Your task to perform on an android device: change notifications settings Image 0: 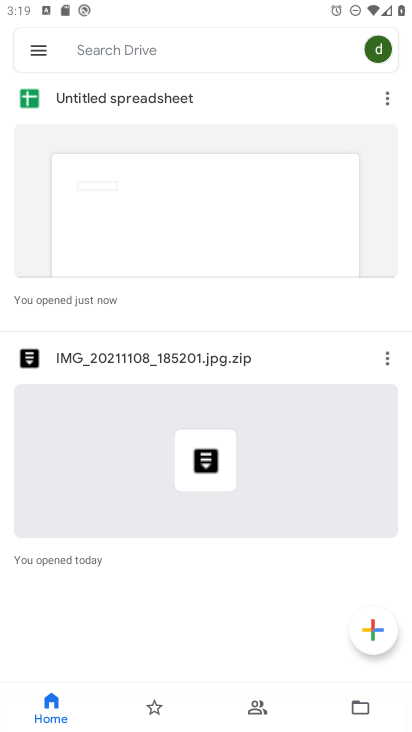
Step 0: press home button
Your task to perform on an android device: change notifications settings Image 1: 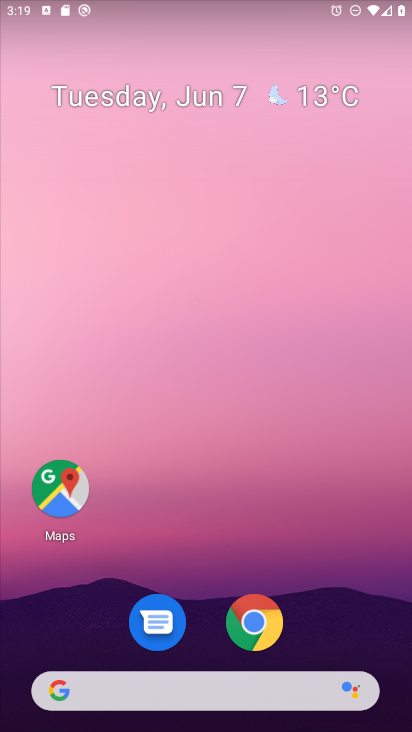
Step 1: drag from (231, 135) to (230, 63)
Your task to perform on an android device: change notifications settings Image 2: 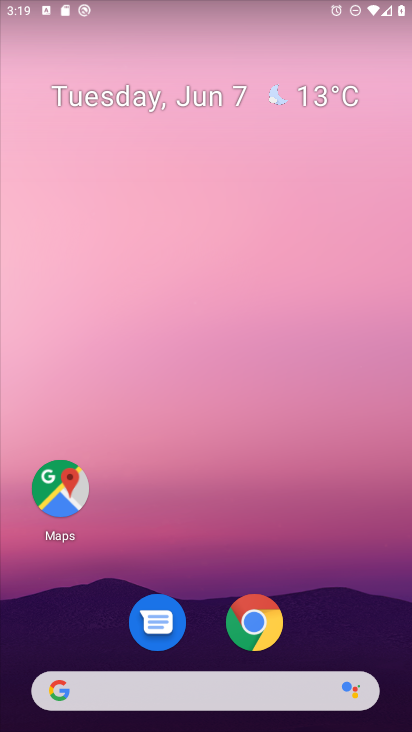
Step 2: drag from (269, 338) to (228, 29)
Your task to perform on an android device: change notifications settings Image 3: 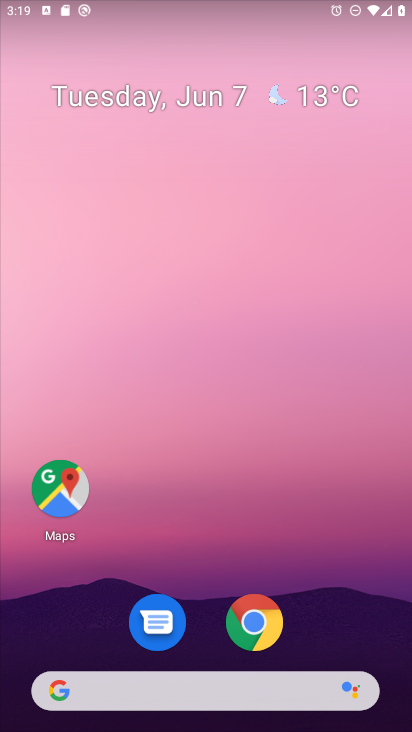
Step 3: drag from (330, 591) to (237, 90)
Your task to perform on an android device: change notifications settings Image 4: 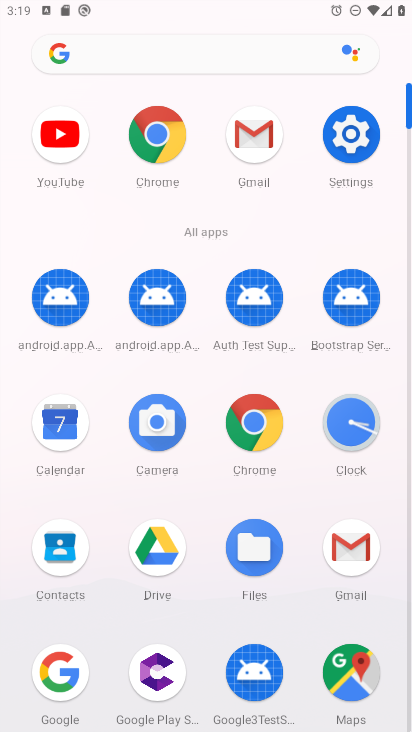
Step 4: click (351, 141)
Your task to perform on an android device: change notifications settings Image 5: 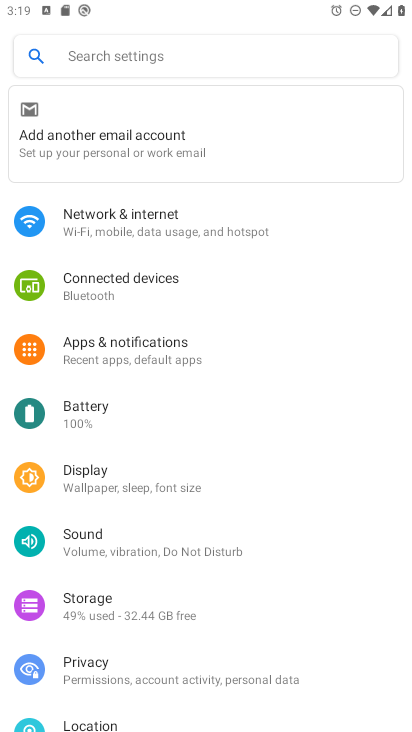
Step 5: click (145, 354)
Your task to perform on an android device: change notifications settings Image 6: 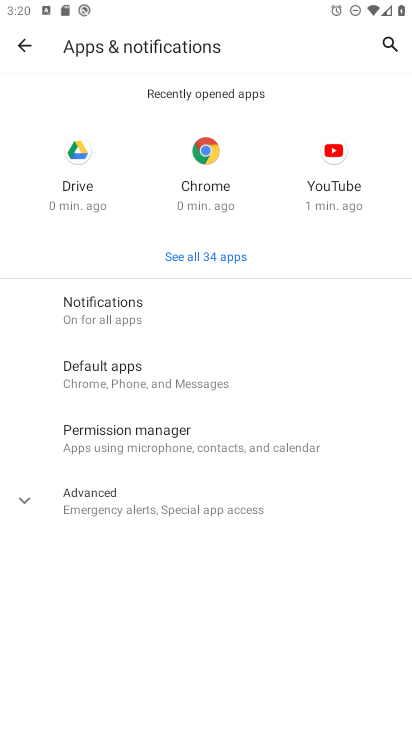
Step 6: click (157, 499)
Your task to perform on an android device: change notifications settings Image 7: 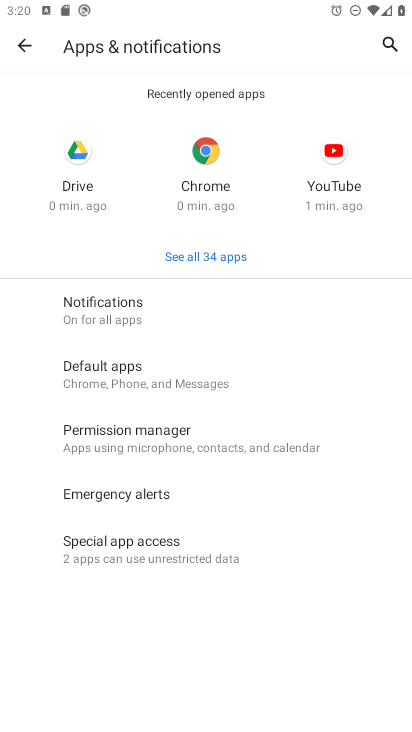
Step 7: click (145, 312)
Your task to perform on an android device: change notifications settings Image 8: 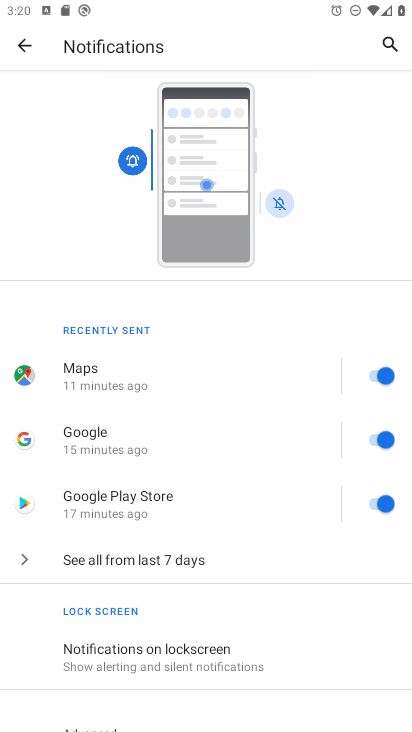
Step 8: click (375, 443)
Your task to perform on an android device: change notifications settings Image 9: 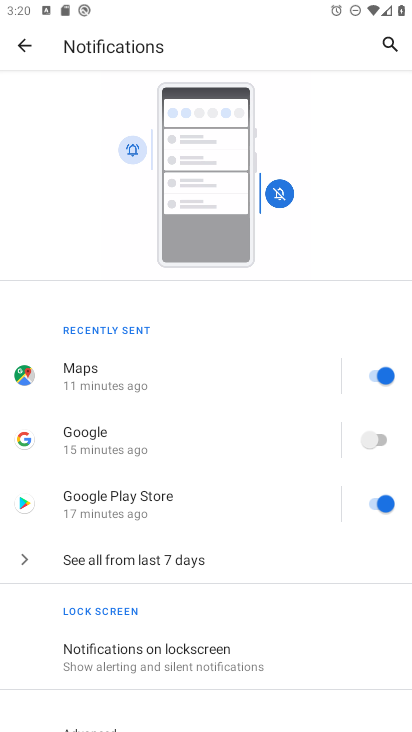
Step 9: task complete